Your task to perform on an android device: Show me productivity apps on the Play Store Image 0: 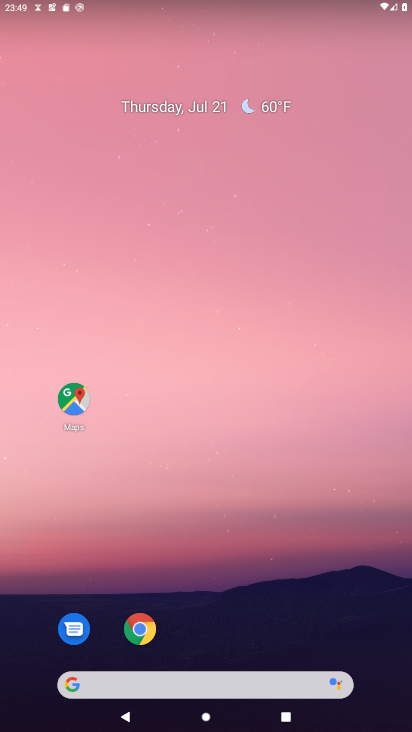
Step 0: drag from (213, 624) to (283, 150)
Your task to perform on an android device: Show me productivity apps on the Play Store Image 1: 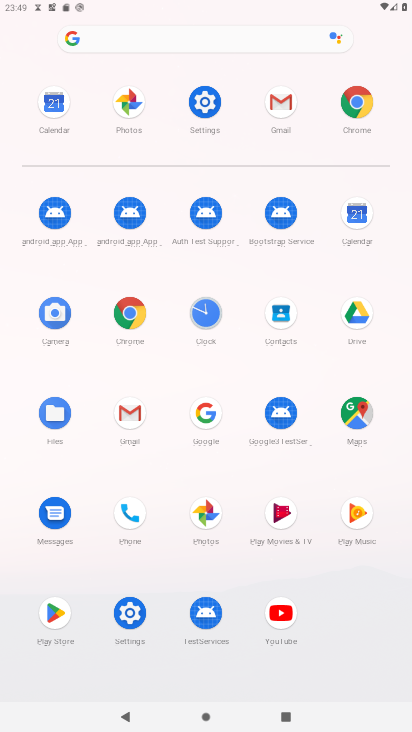
Step 1: click (50, 616)
Your task to perform on an android device: Show me productivity apps on the Play Store Image 2: 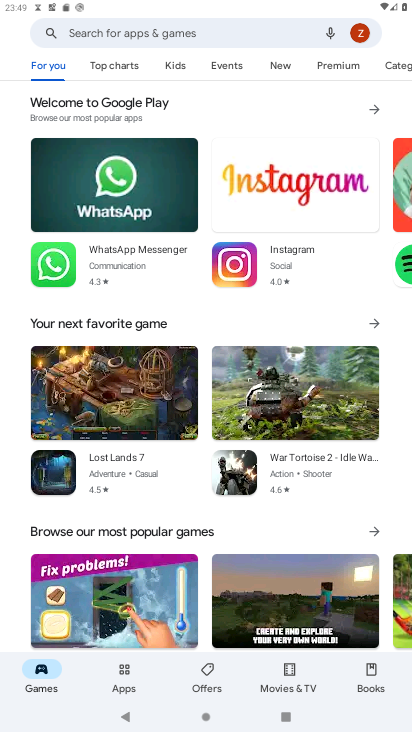
Step 2: click (119, 677)
Your task to perform on an android device: Show me productivity apps on the Play Store Image 3: 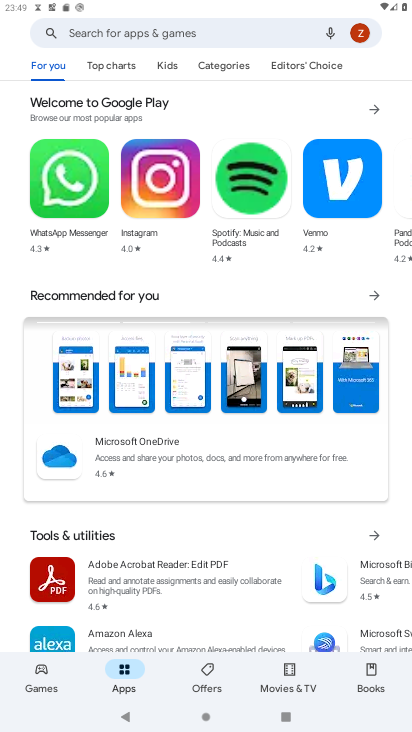
Step 3: task complete